Your task to perform on an android device: change keyboard looks Image 0: 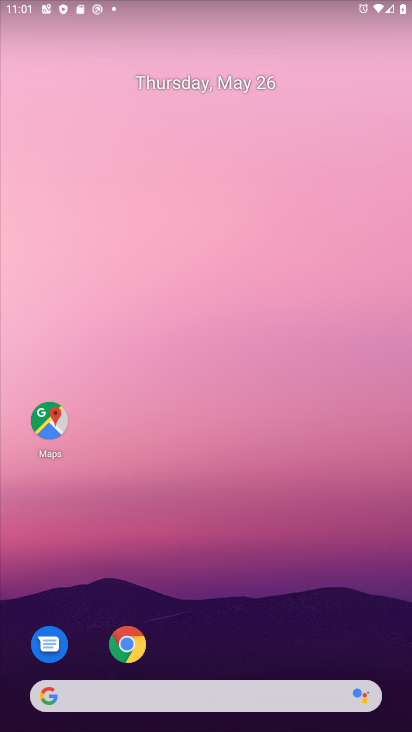
Step 0: drag from (245, 655) to (203, 254)
Your task to perform on an android device: change keyboard looks Image 1: 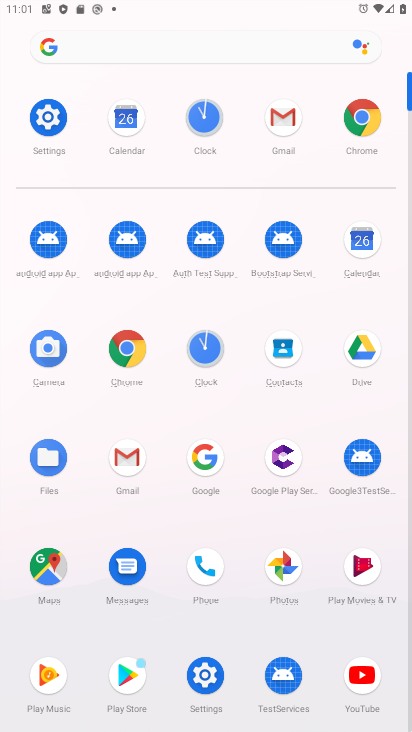
Step 1: click (24, 138)
Your task to perform on an android device: change keyboard looks Image 2: 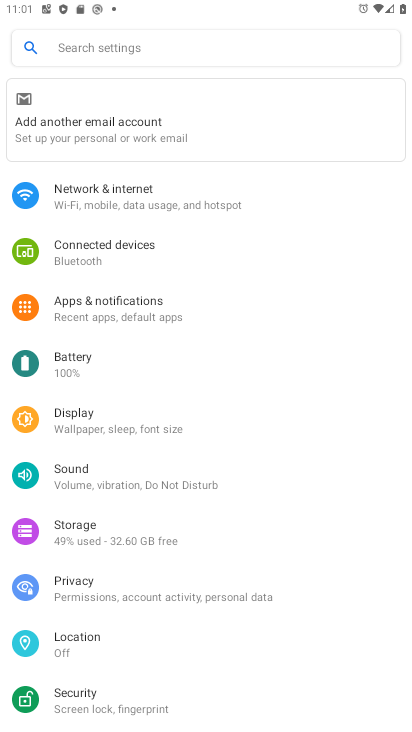
Step 2: drag from (177, 690) to (198, 290)
Your task to perform on an android device: change keyboard looks Image 3: 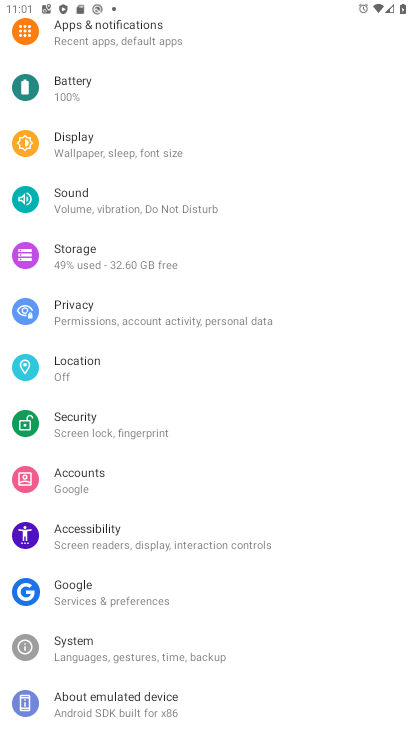
Step 3: drag from (223, 608) to (203, 304)
Your task to perform on an android device: change keyboard looks Image 4: 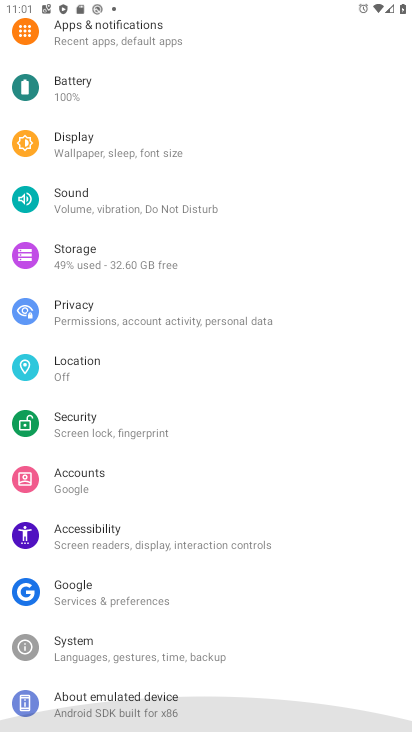
Step 4: drag from (203, 647) to (168, 381)
Your task to perform on an android device: change keyboard looks Image 5: 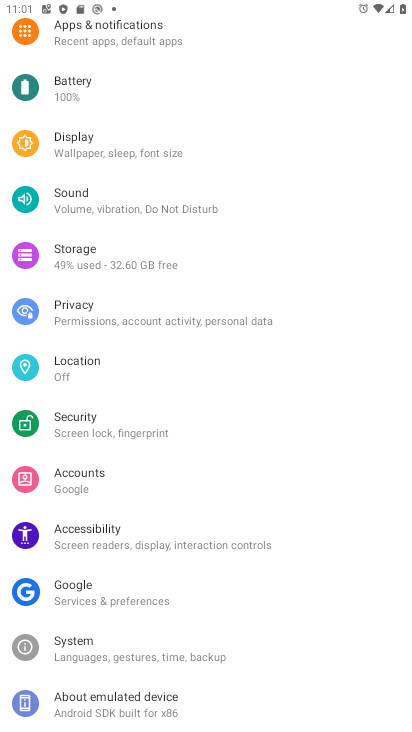
Step 5: click (83, 639)
Your task to perform on an android device: change keyboard looks Image 6: 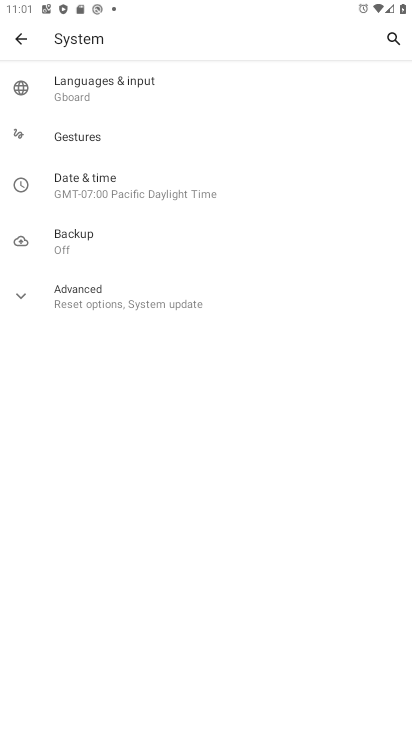
Step 6: click (116, 94)
Your task to perform on an android device: change keyboard looks Image 7: 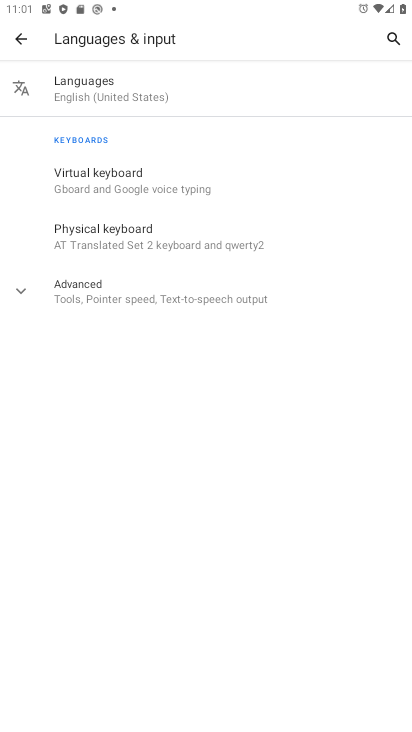
Step 7: click (129, 184)
Your task to perform on an android device: change keyboard looks Image 8: 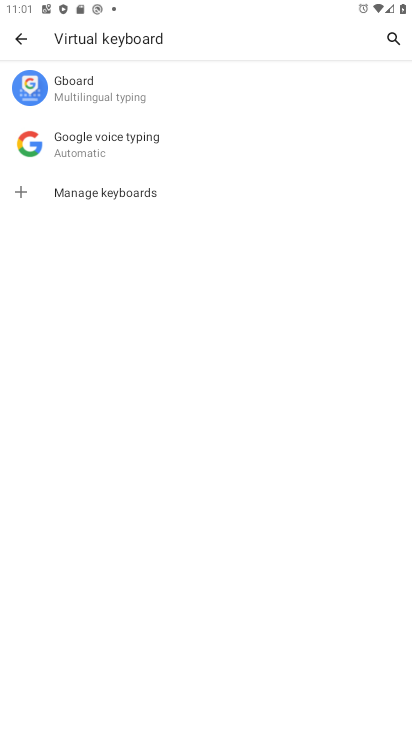
Step 8: click (131, 96)
Your task to perform on an android device: change keyboard looks Image 9: 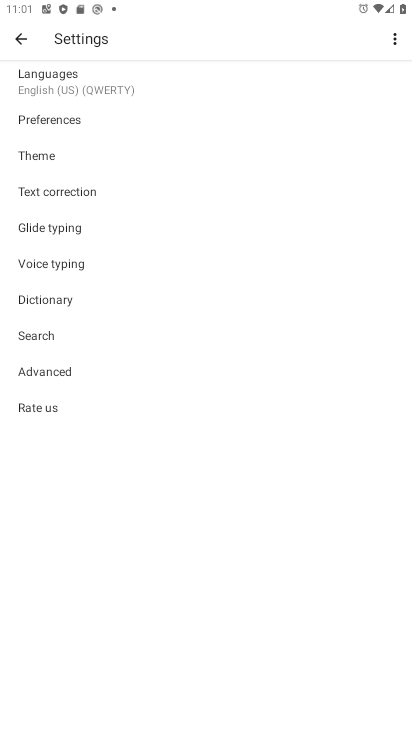
Step 9: click (23, 149)
Your task to perform on an android device: change keyboard looks Image 10: 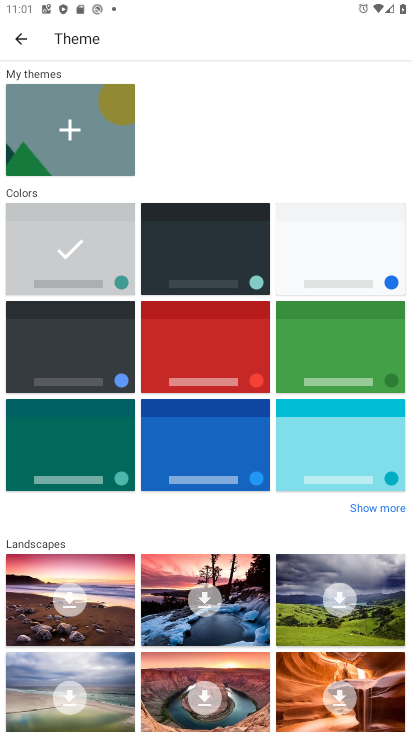
Step 10: click (210, 265)
Your task to perform on an android device: change keyboard looks Image 11: 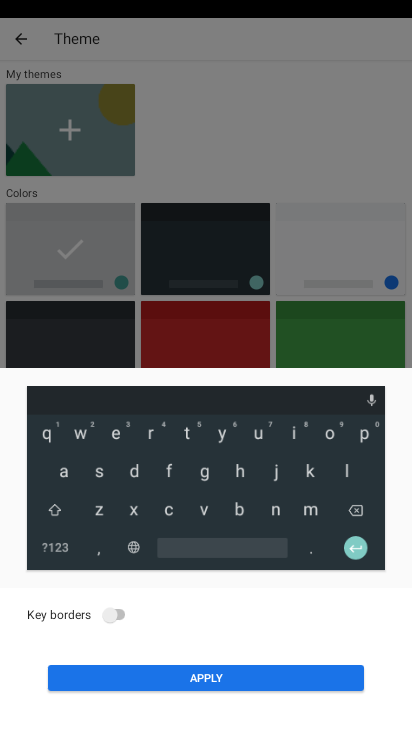
Step 11: click (305, 668)
Your task to perform on an android device: change keyboard looks Image 12: 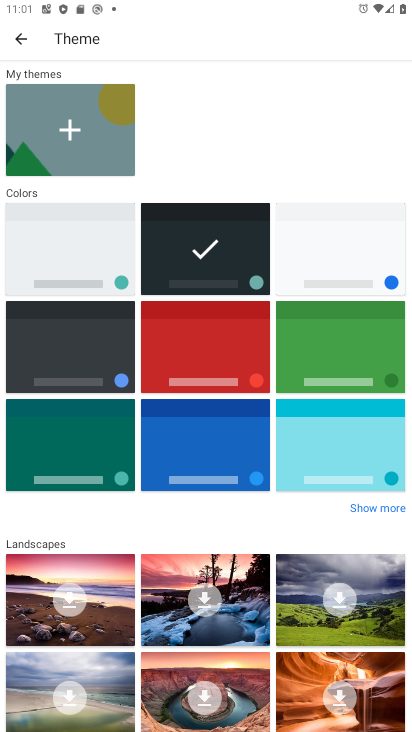
Step 12: task complete